Your task to perform on an android device: Search for "logitech g pro" on bestbuy.com, select the first entry, and add it to the cart. Image 0: 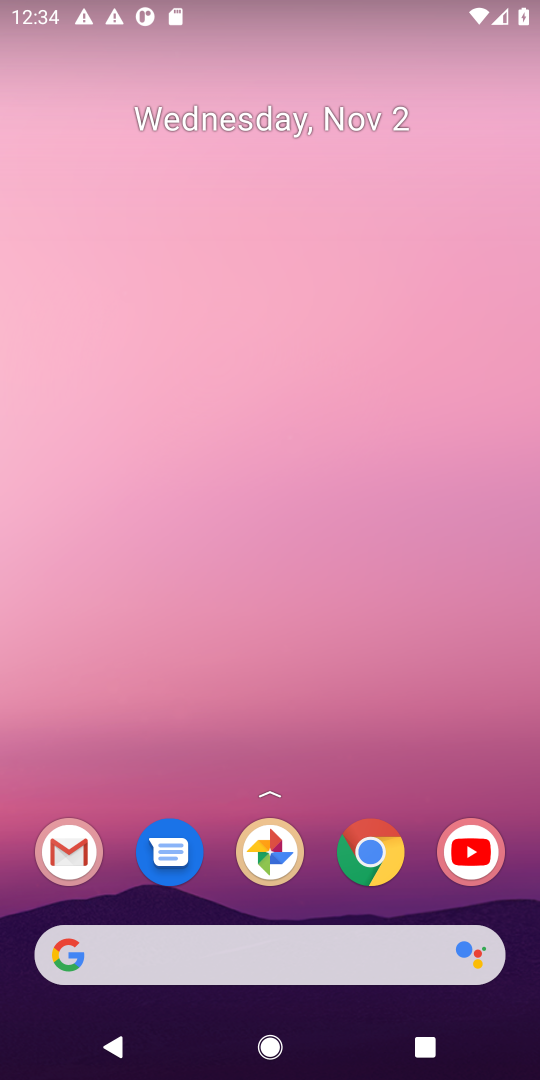
Step 0: press home button
Your task to perform on an android device: Search for "logitech g pro" on bestbuy.com, select the first entry, and add it to the cart. Image 1: 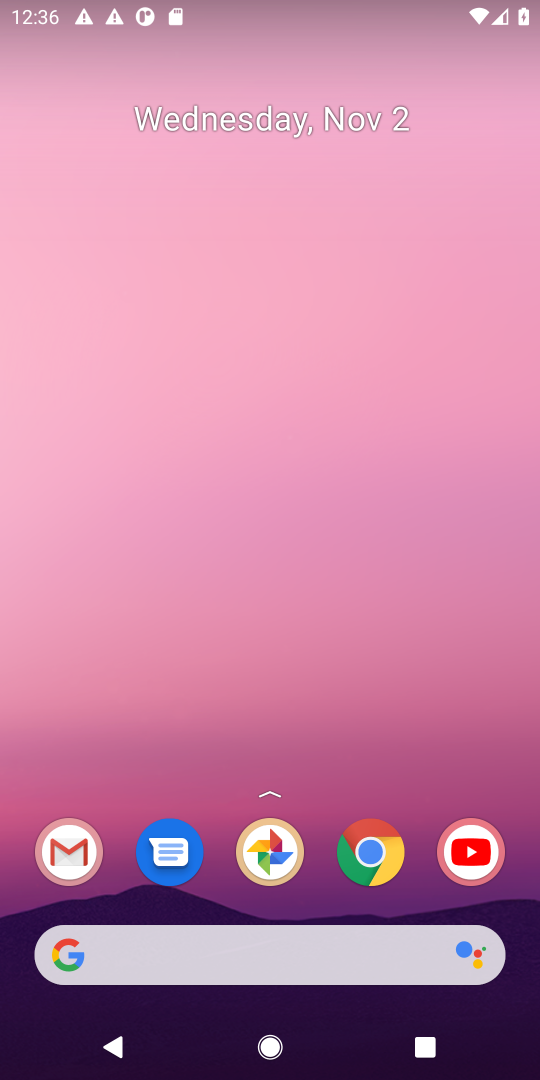
Step 1: click (64, 948)
Your task to perform on an android device: Search for "logitech g pro" on bestbuy.com, select the first entry, and add it to the cart. Image 2: 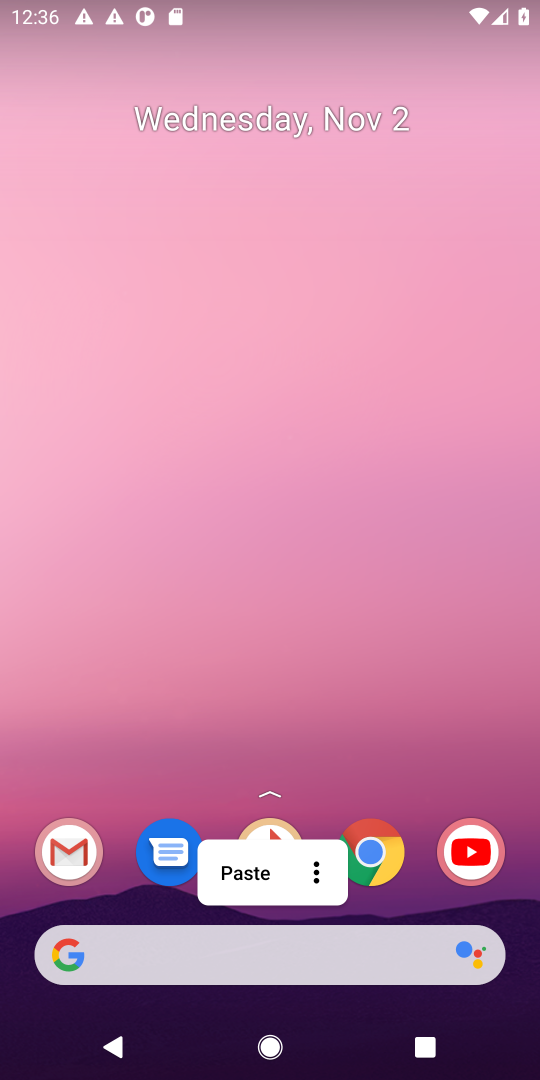
Step 2: click (64, 948)
Your task to perform on an android device: Search for "logitech g pro" on bestbuy.com, select the first entry, and add it to the cart. Image 3: 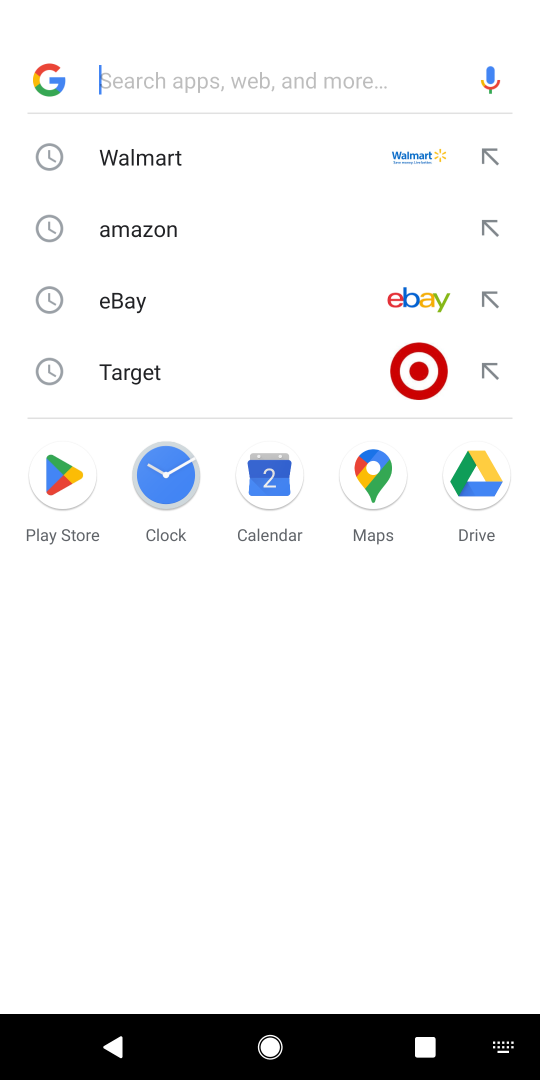
Step 3: type " bestbuy.com"
Your task to perform on an android device: Search for "logitech g pro" on bestbuy.com, select the first entry, and add it to the cart. Image 4: 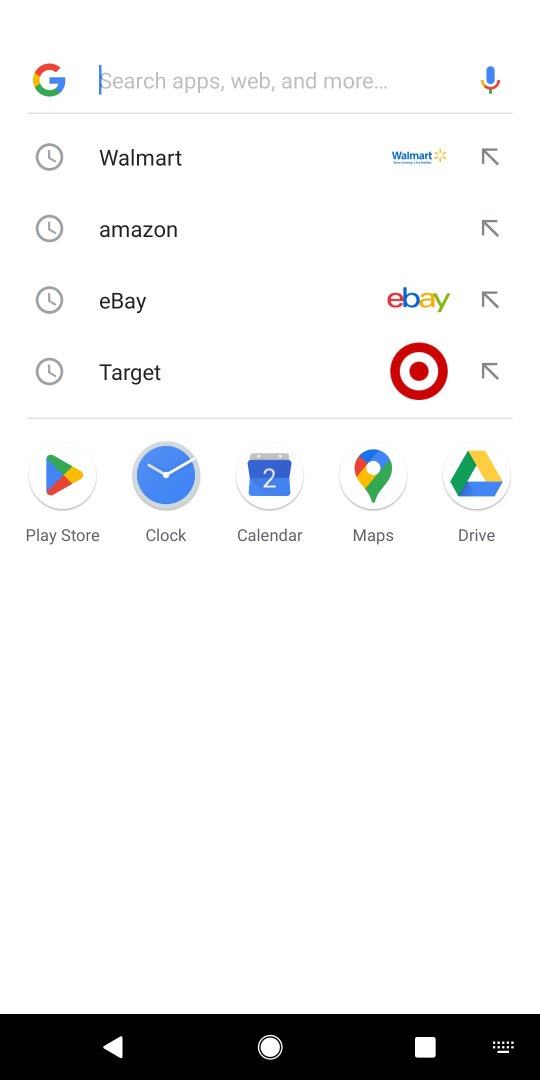
Step 4: click (130, 71)
Your task to perform on an android device: Search for "logitech g pro" on bestbuy.com, select the first entry, and add it to the cart. Image 5: 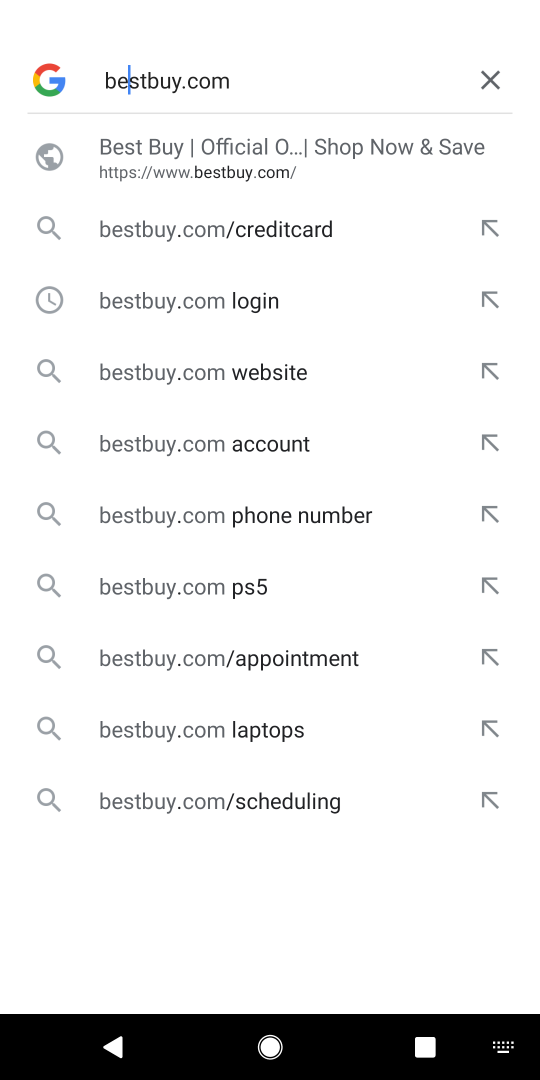
Step 5: press enter
Your task to perform on an android device: Search for "logitech g pro" on bestbuy.com, select the first entry, and add it to the cart. Image 6: 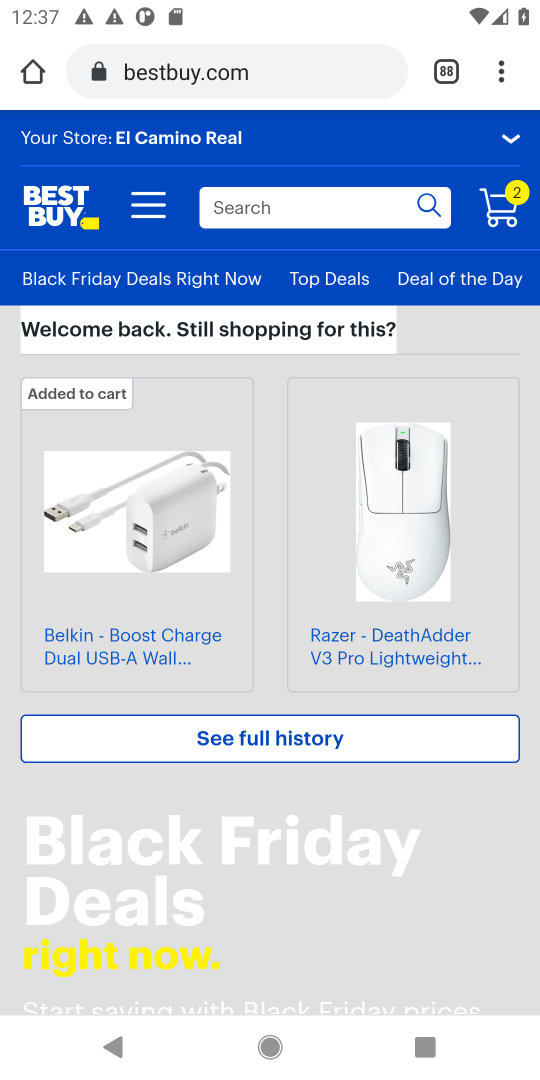
Step 6: click (250, 208)
Your task to perform on an android device: Search for "logitech g pro" on bestbuy.com, select the first entry, and add it to the cart. Image 7: 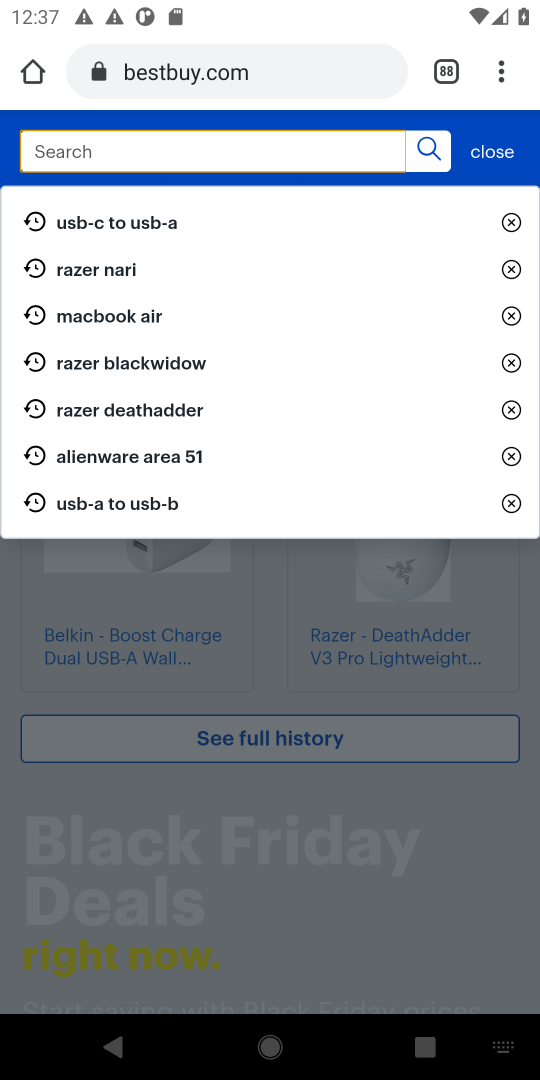
Step 7: type "logitech g pro"
Your task to perform on an android device: Search for "logitech g pro" on bestbuy.com, select the first entry, and add it to the cart. Image 8: 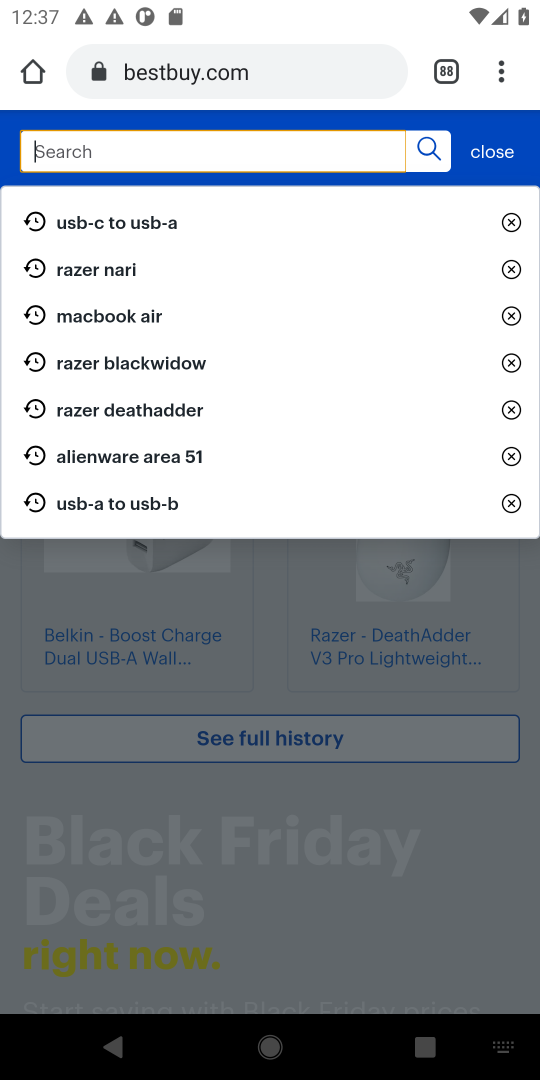
Step 8: click (98, 162)
Your task to perform on an android device: Search for "logitech g pro" on bestbuy.com, select the first entry, and add it to the cart. Image 9: 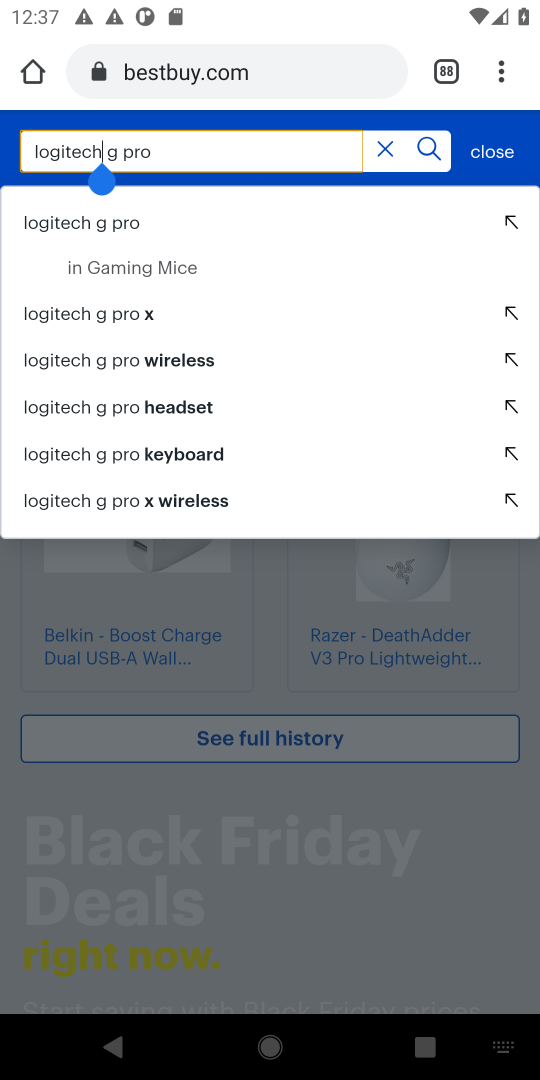
Step 9: press enter
Your task to perform on an android device: Search for "logitech g pro" on bestbuy.com, select the first entry, and add it to the cart. Image 10: 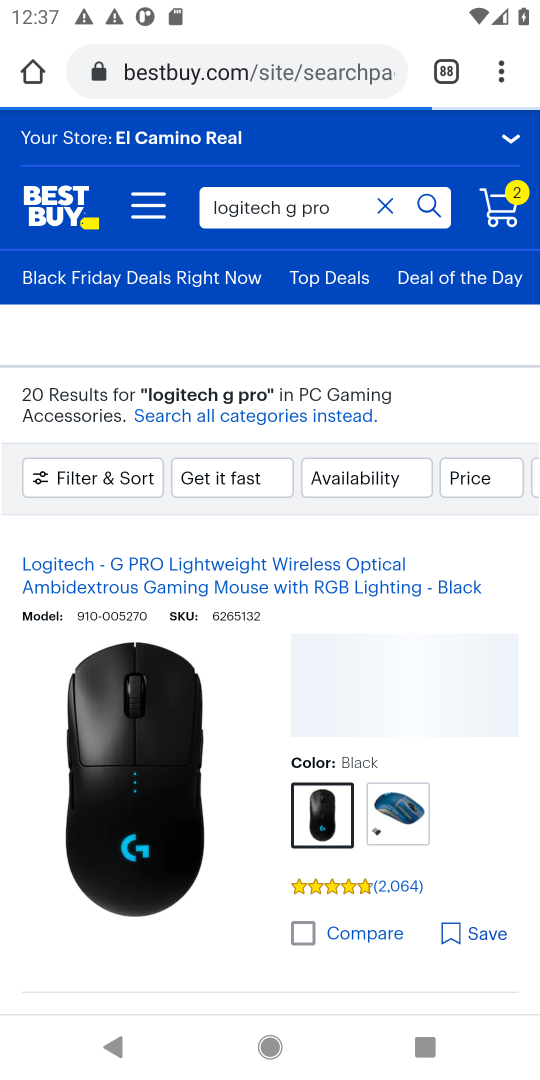
Step 10: drag from (200, 859) to (258, 467)
Your task to perform on an android device: Search for "logitech g pro" on bestbuy.com, select the first entry, and add it to the cart. Image 11: 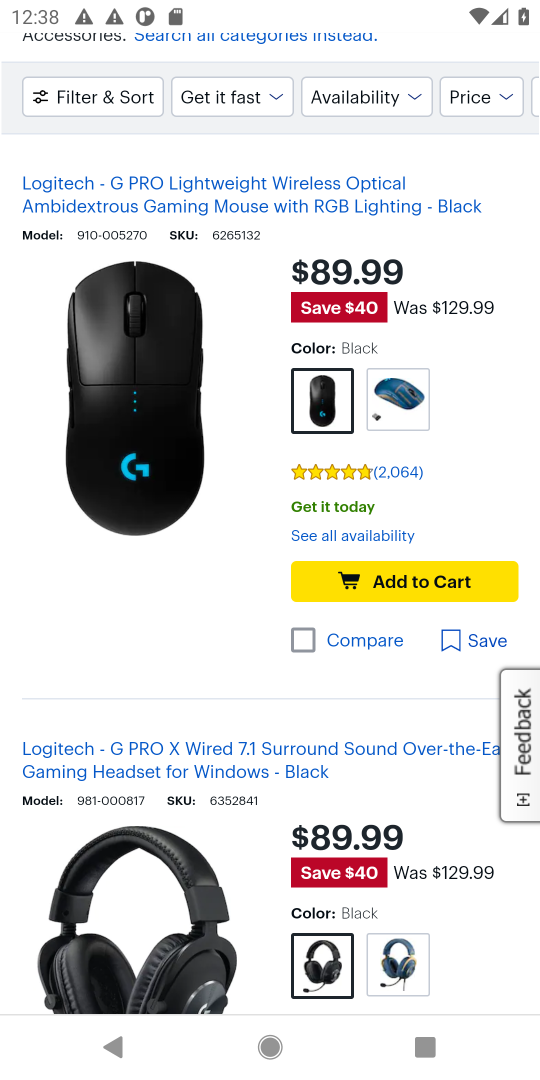
Step 11: drag from (396, 254) to (342, 848)
Your task to perform on an android device: Search for "logitech g pro" on bestbuy.com, select the first entry, and add it to the cart. Image 12: 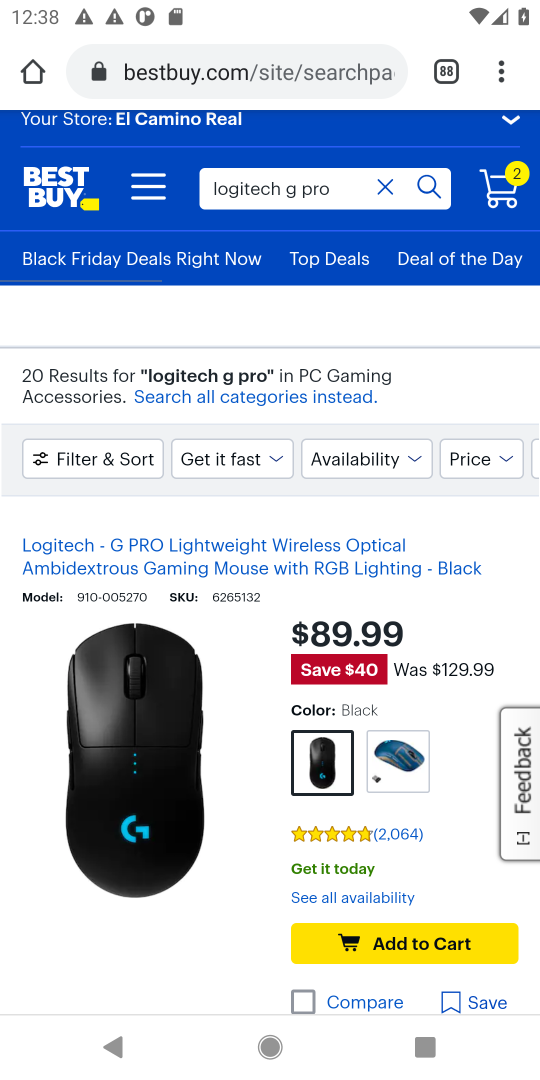
Step 12: click (206, 566)
Your task to perform on an android device: Search for "logitech g pro" on bestbuy.com, select the first entry, and add it to the cart. Image 13: 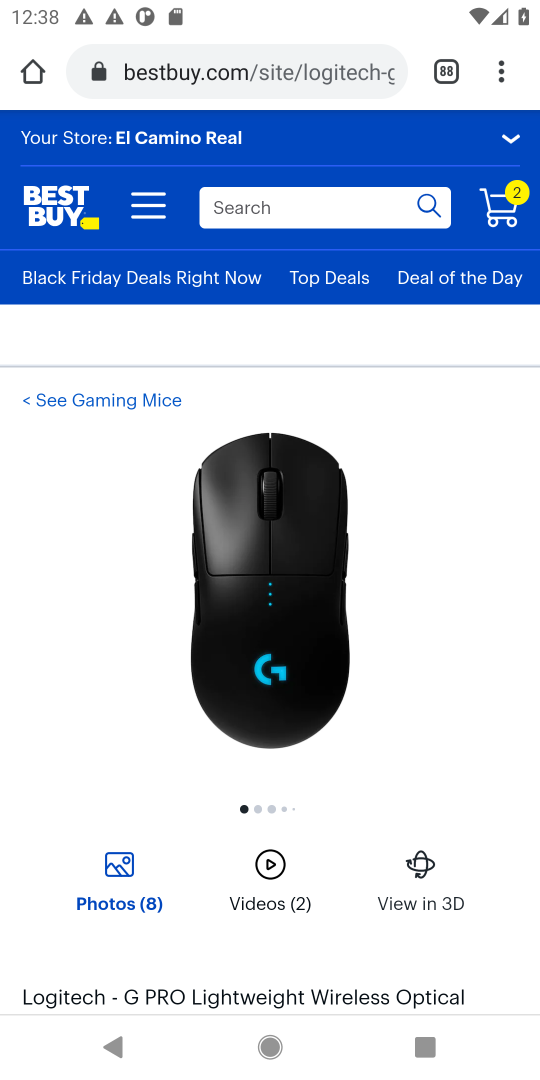
Step 13: drag from (400, 941) to (473, 75)
Your task to perform on an android device: Search for "logitech g pro" on bestbuy.com, select the first entry, and add it to the cart. Image 14: 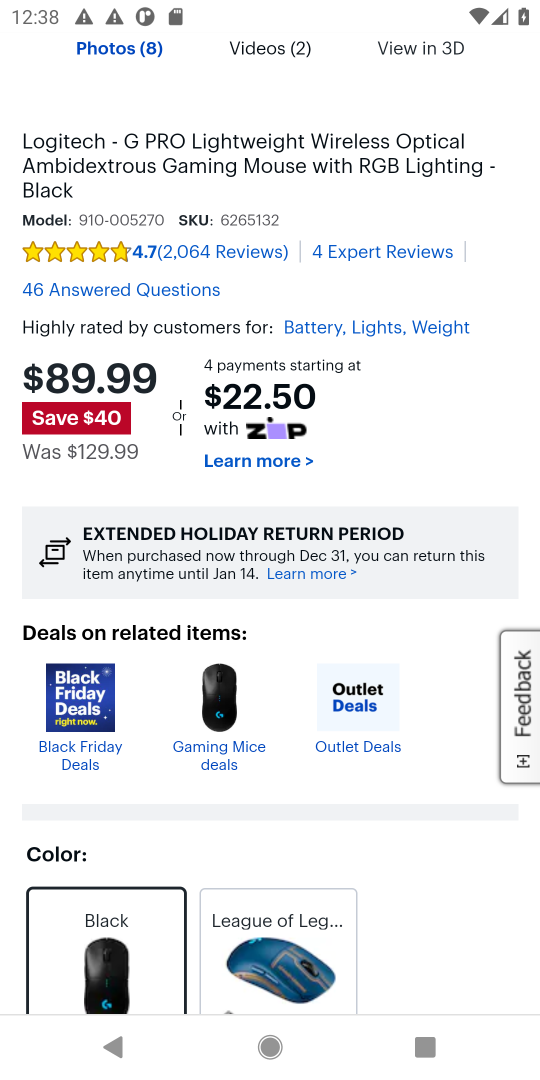
Step 14: drag from (447, 959) to (350, 401)
Your task to perform on an android device: Search for "logitech g pro" on bestbuy.com, select the first entry, and add it to the cart. Image 15: 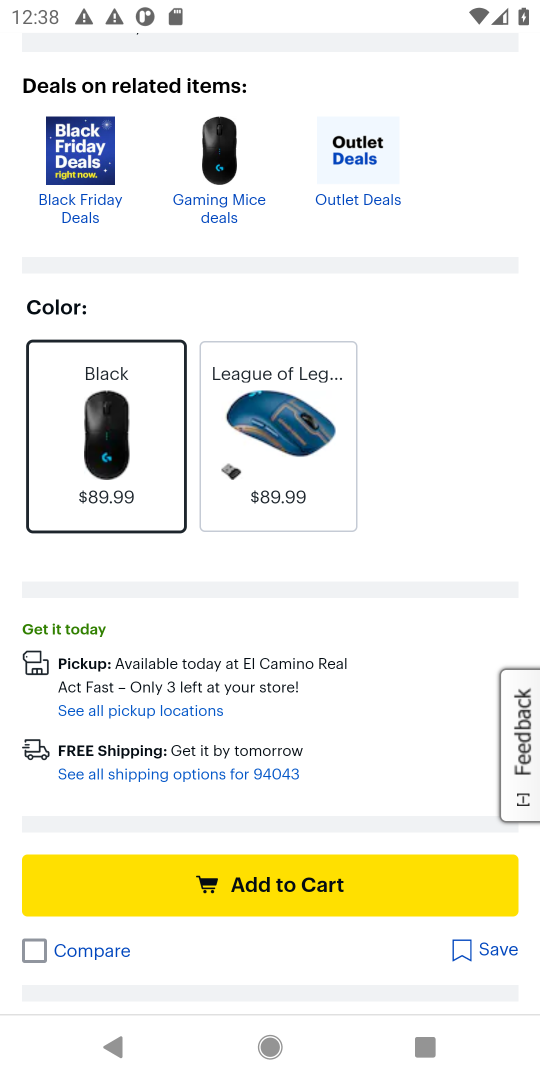
Step 15: click (234, 899)
Your task to perform on an android device: Search for "logitech g pro" on bestbuy.com, select the first entry, and add it to the cart. Image 16: 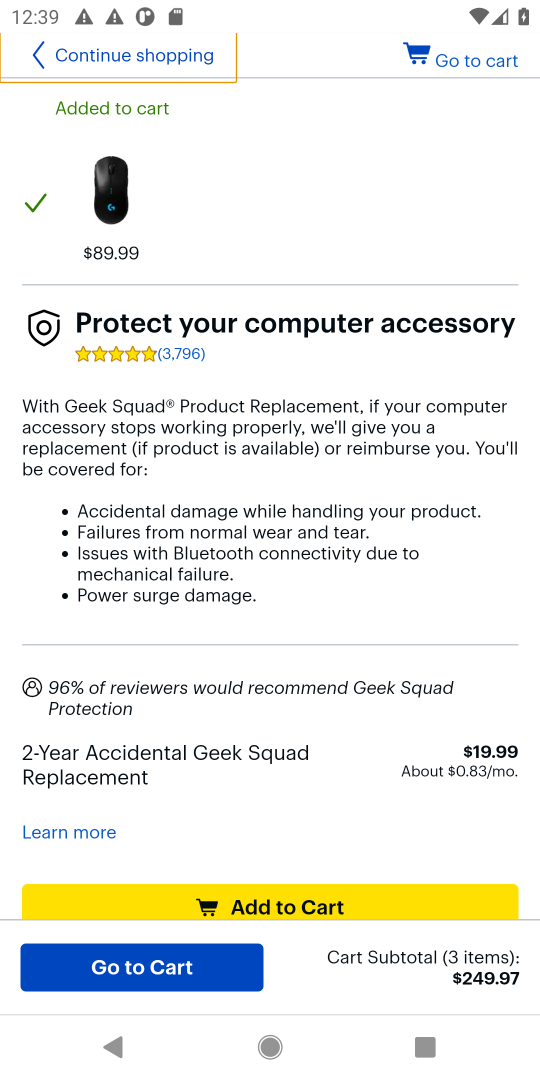
Step 16: task complete